Your task to perform on an android device: What's the weather going to be tomorrow? Image 0: 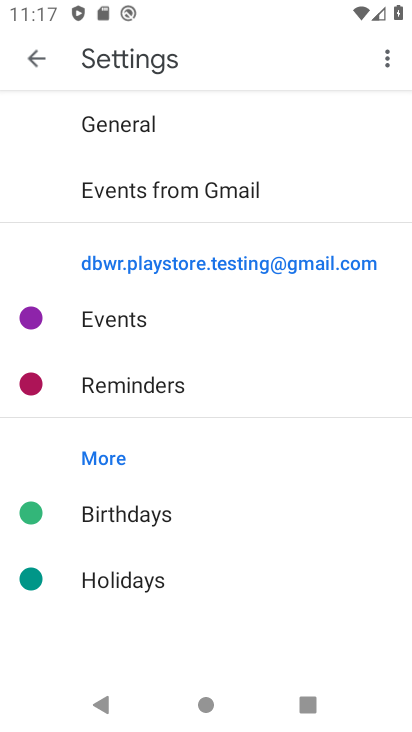
Step 0: drag from (218, 8) to (212, 602)
Your task to perform on an android device: What's the weather going to be tomorrow? Image 1: 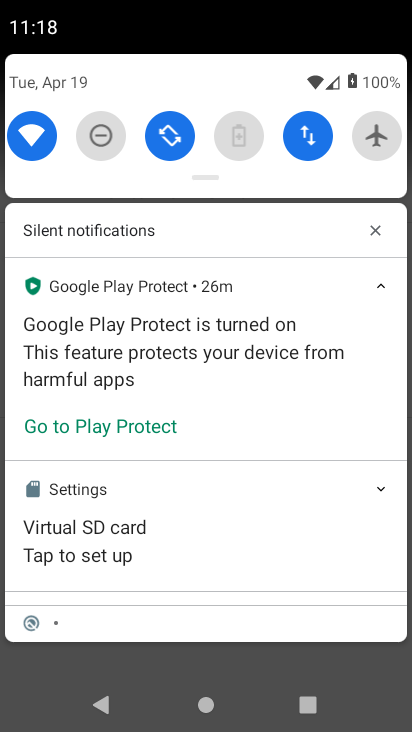
Step 1: drag from (238, 92) to (160, 651)
Your task to perform on an android device: What's the weather going to be tomorrow? Image 2: 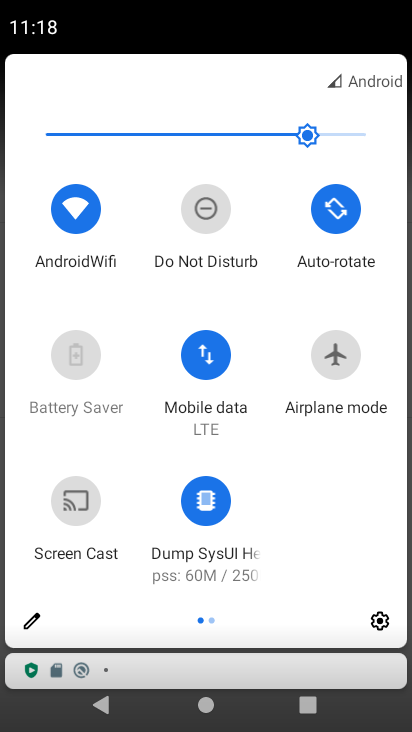
Step 2: press home button
Your task to perform on an android device: What's the weather going to be tomorrow? Image 3: 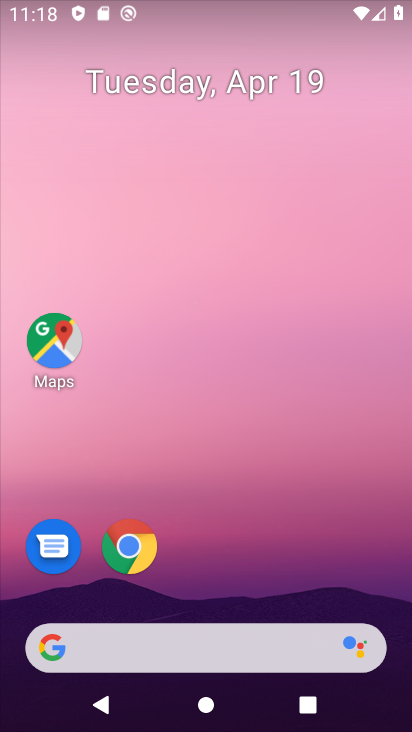
Step 3: click (213, 651)
Your task to perform on an android device: What's the weather going to be tomorrow? Image 4: 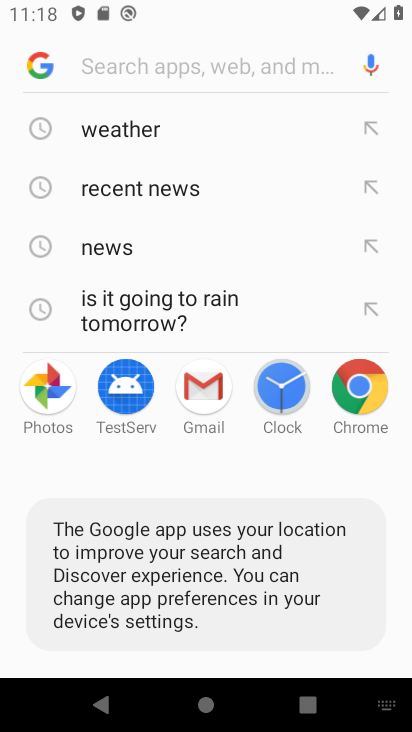
Step 4: click (179, 119)
Your task to perform on an android device: What's the weather going to be tomorrow? Image 5: 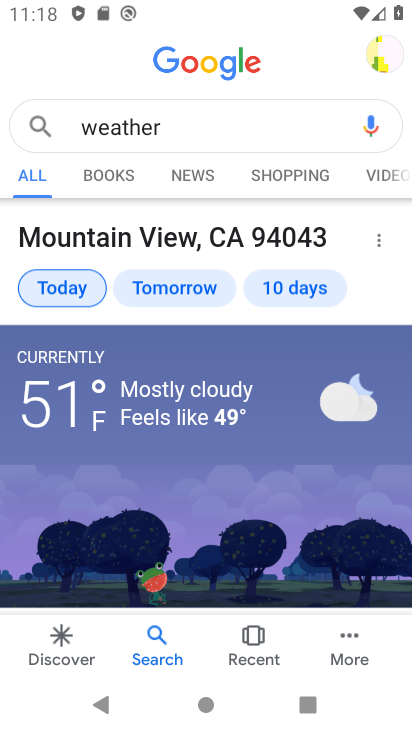
Step 5: click (144, 297)
Your task to perform on an android device: What's the weather going to be tomorrow? Image 6: 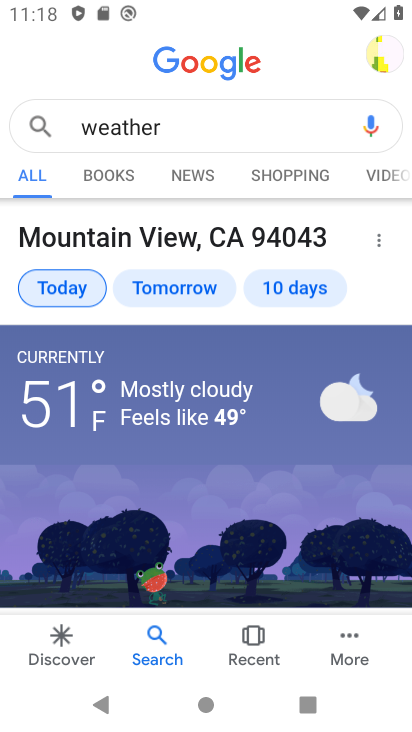
Step 6: click (183, 285)
Your task to perform on an android device: What's the weather going to be tomorrow? Image 7: 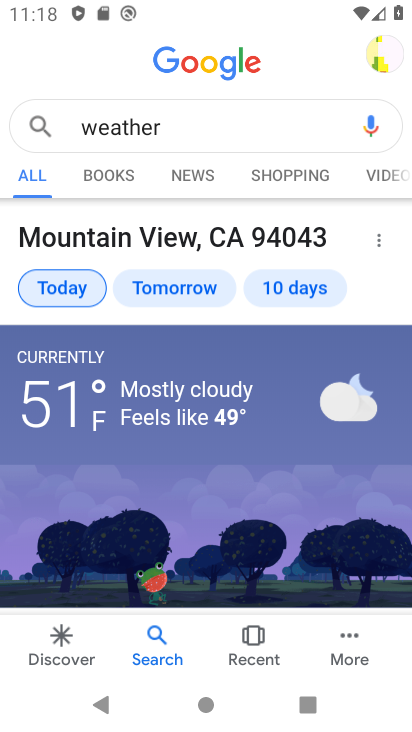
Step 7: click (183, 285)
Your task to perform on an android device: What's the weather going to be tomorrow? Image 8: 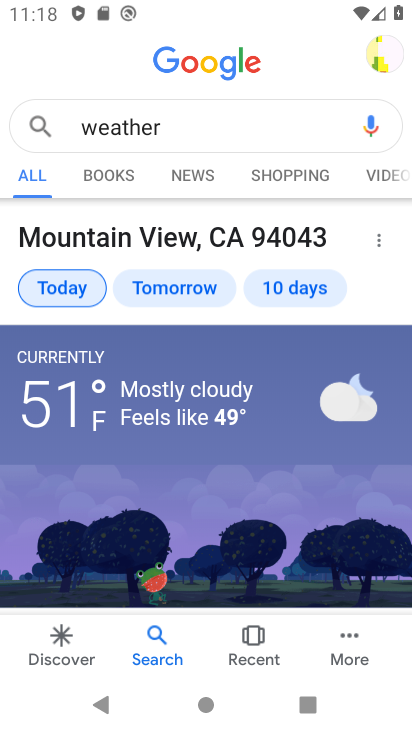
Step 8: click (183, 285)
Your task to perform on an android device: What's the weather going to be tomorrow? Image 9: 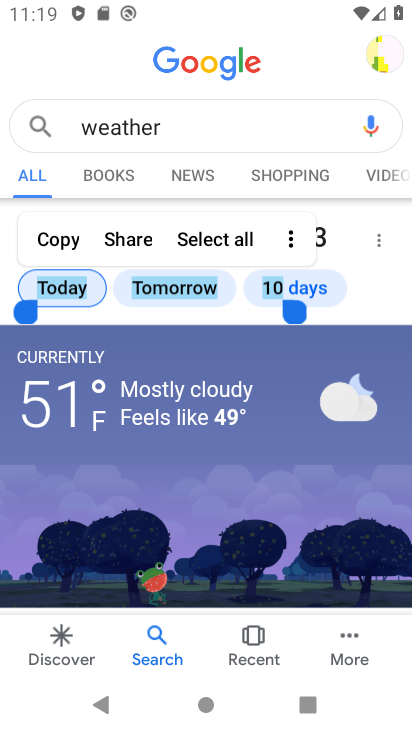
Step 9: click (183, 285)
Your task to perform on an android device: What's the weather going to be tomorrow? Image 10: 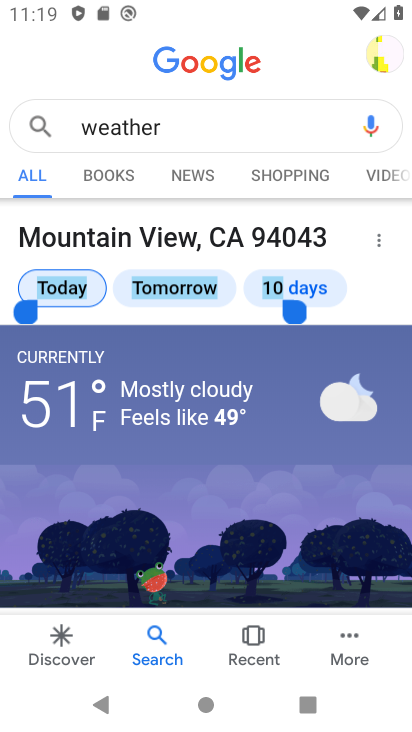
Step 10: click (218, 300)
Your task to perform on an android device: What's the weather going to be tomorrow? Image 11: 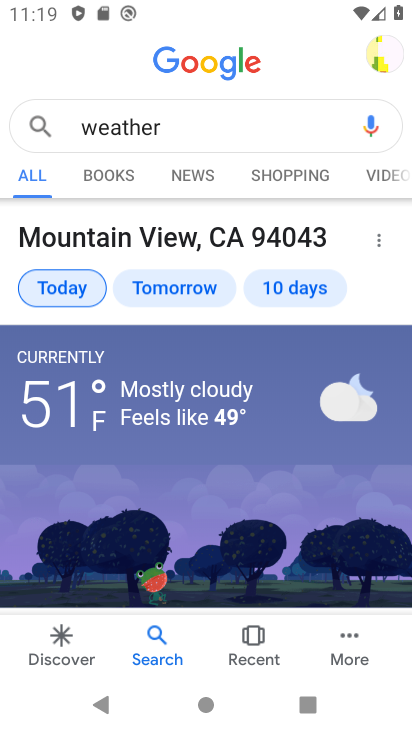
Step 11: click (201, 293)
Your task to perform on an android device: What's the weather going to be tomorrow? Image 12: 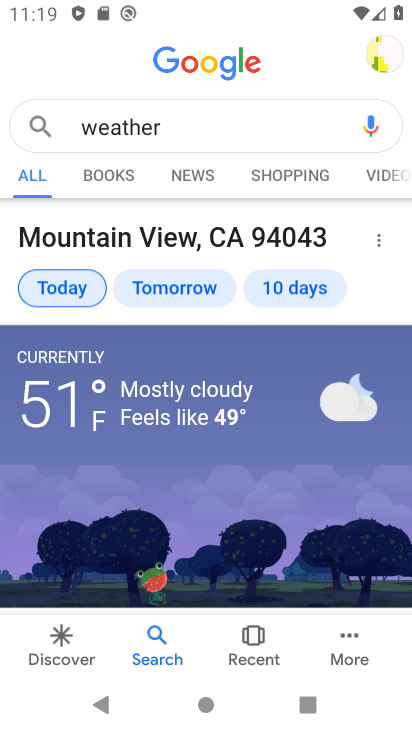
Step 12: click (201, 293)
Your task to perform on an android device: What's the weather going to be tomorrow? Image 13: 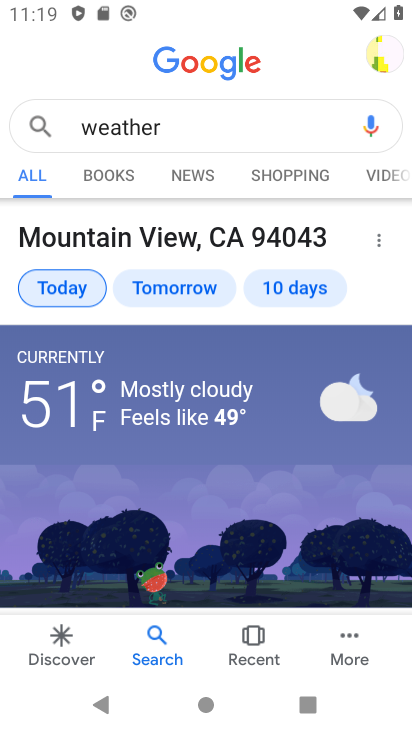
Step 13: click (375, 233)
Your task to perform on an android device: What's the weather going to be tomorrow? Image 14: 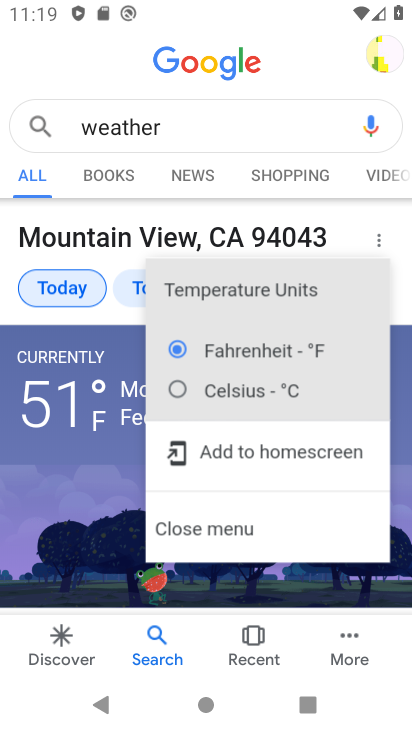
Step 14: click (52, 441)
Your task to perform on an android device: What's the weather going to be tomorrow? Image 15: 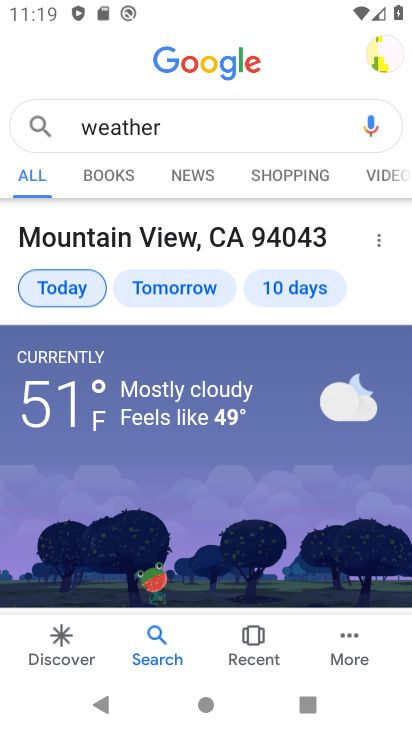
Step 15: click (289, 289)
Your task to perform on an android device: What's the weather going to be tomorrow? Image 16: 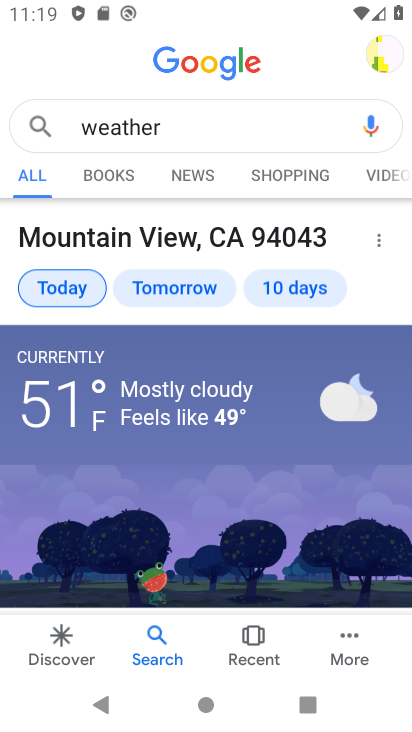
Step 16: task complete